Your task to perform on an android device: turn off picture-in-picture Image 0: 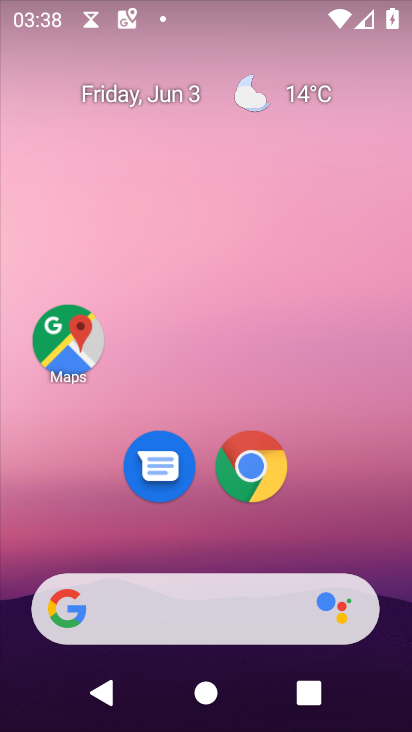
Step 0: click (248, 458)
Your task to perform on an android device: turn off picture-in-picture Image 1: 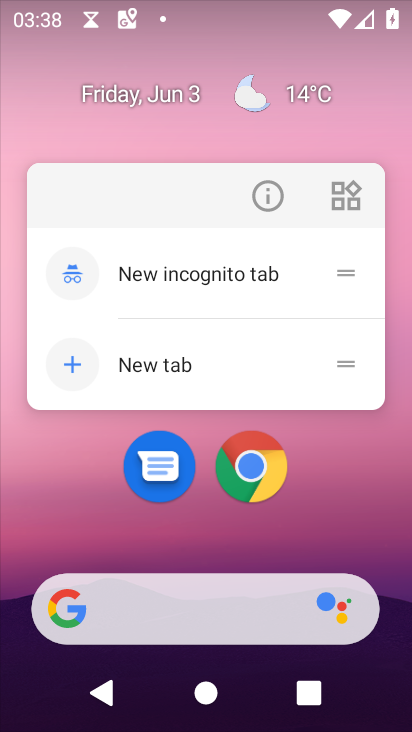
Step 1: click (267, 198)
Your task to perform on an android device: turn off picture-in-picture Image 2: 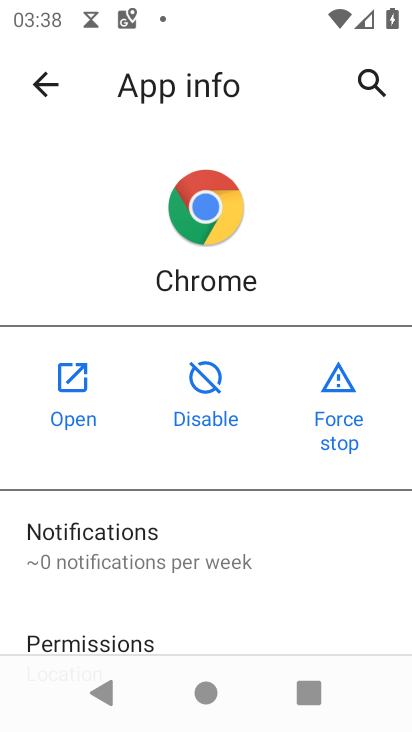
Step 2: drag from (233, 598) to (244, 130)
Your task to perform on an android device: turn off picture-in-picture Image 3: 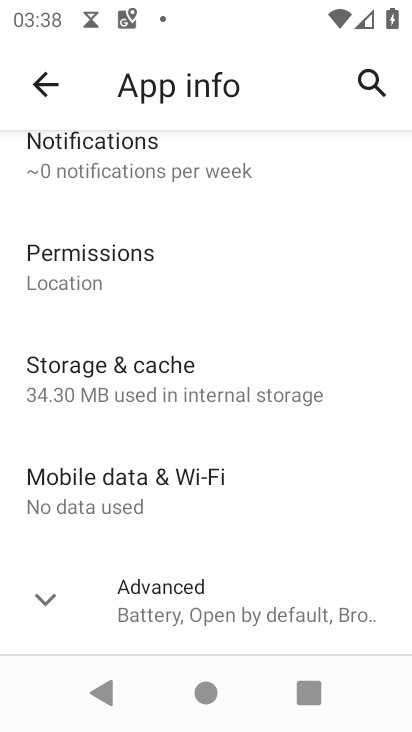
Step 3: click (52, 602)
Your task to perform on an android device: turn off picture-in-picture Image 4: 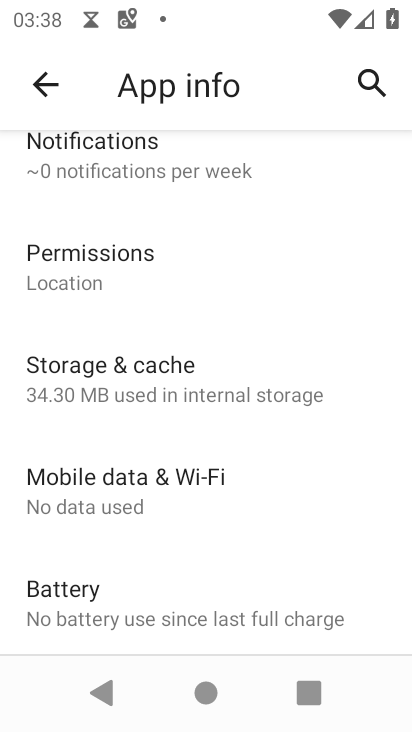
Step 4: drag from (206, 637) to (213, 197)
Your task to perform on an android device: turn off picture-in-picture Image 5: 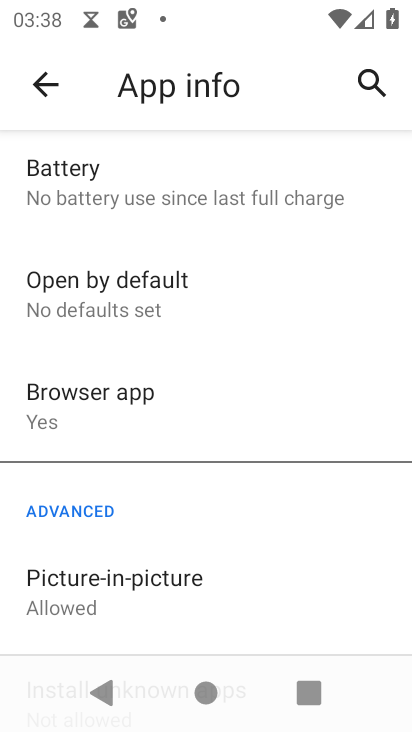
Step 5: click (143, 595)
Your task to perform on an android device: turn off picture-in-picture Image 6: 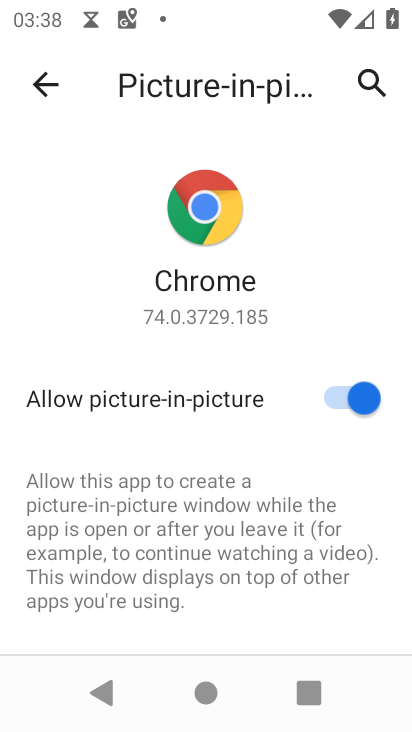
Step 6: click (335, 388)
Your task to perform on an android device: turn off picture-in-picture Image 7: 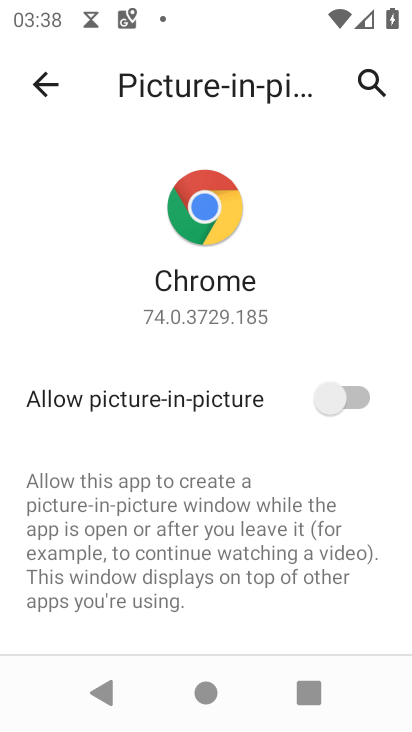
Step 7: task complete